Your task to perform on an android device: What's the weather going to be this weekend? Image 0: 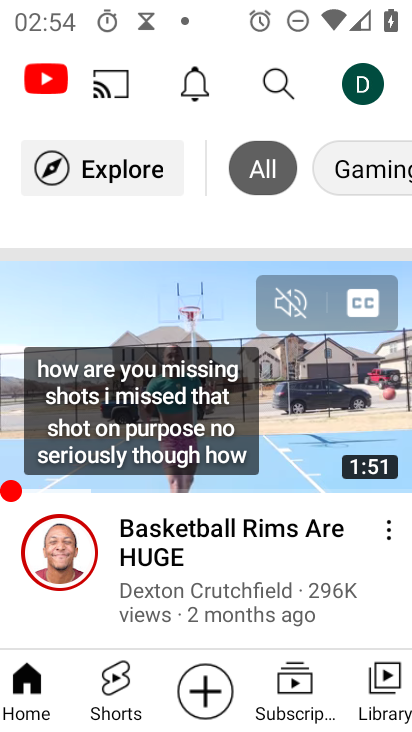
Step 0: press home button
Your task to perform on an android device: What's the weather going to be this weekend? Image 1: 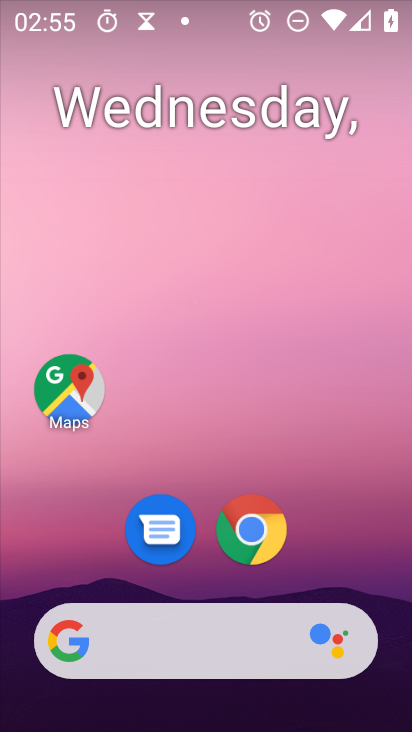
Step 1: drag from (225, 683) to (218, 57)
Your task to perform on an android device: What's the weather going to be this weekend? Image 2: 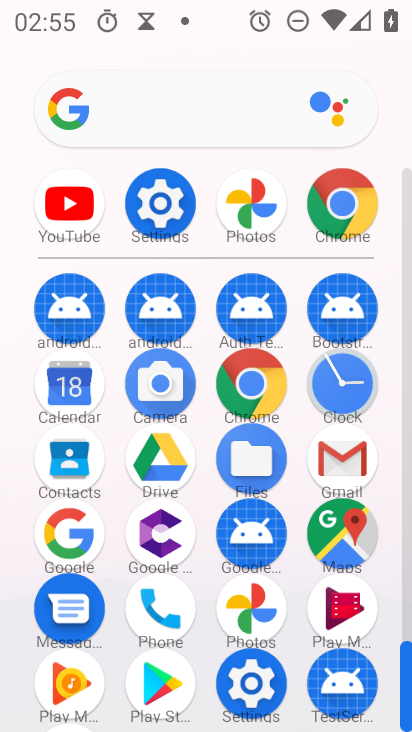
Step 2: press home button
Your task to perform on an android device: What's the weather going to be this weekend? Image 3: 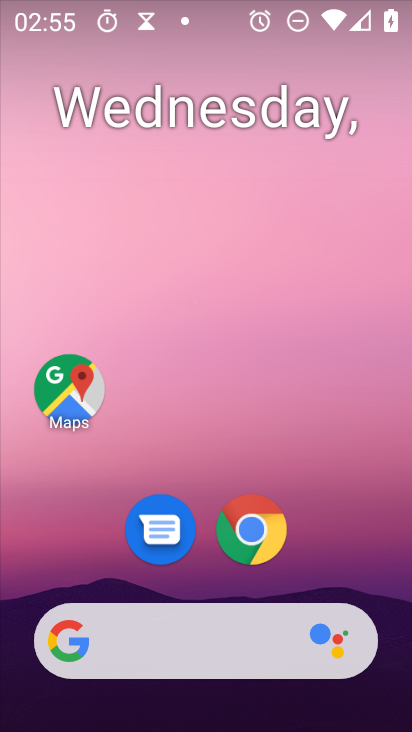
Step 3: drag from (32, 304) to (407, 506)
Your task to perform on an android device: What's the weather going to be this weekend? Image 4: 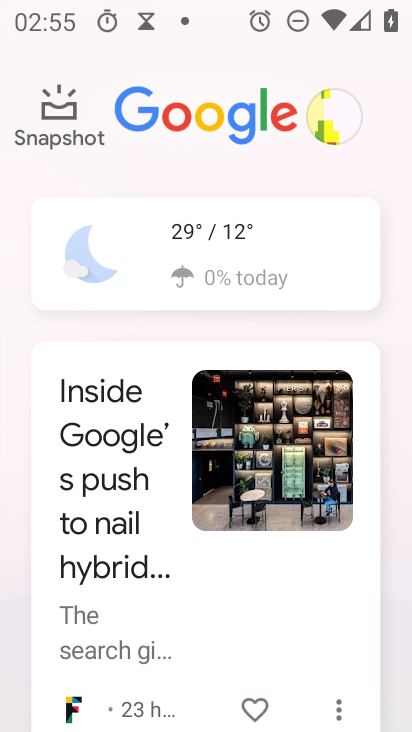
Step 4: click (251, 241)
Your task to perform on an android device: What's the weather going to be this weekend? Image 5: 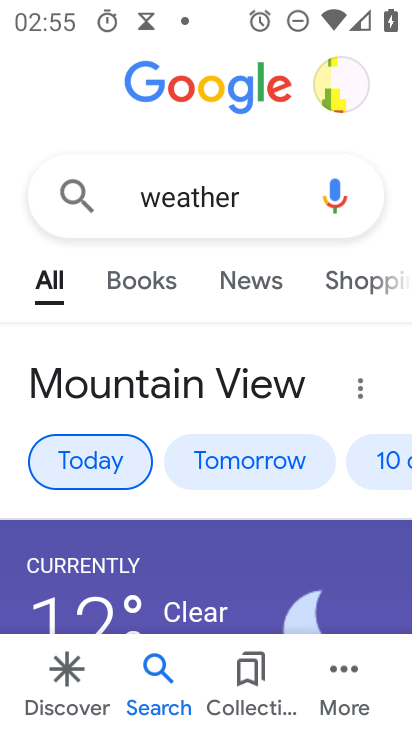
Step 5: drag from (235, 562) to (217, 39)
Your task to perform on an android device: What's the weather going to be this weekend? Image 6: 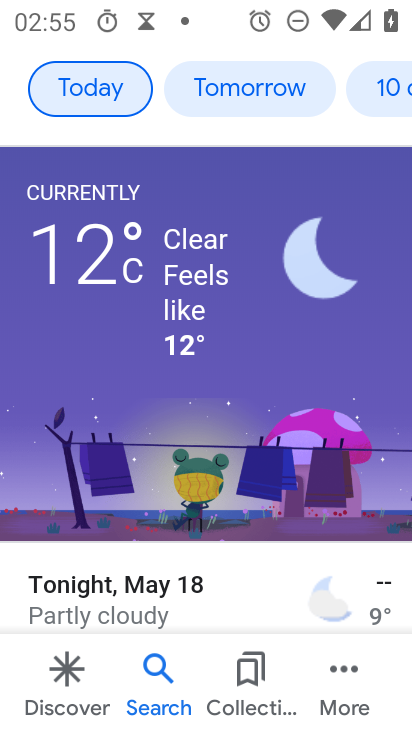
Step 6: click (377, 97)
Your task to perform on an android device: What's the weather going to be this weekend? Image 7: 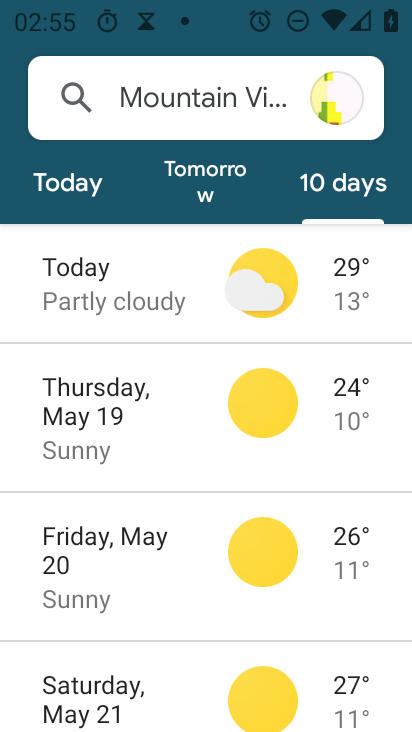
Step 7: task complete